Your task to perform on an android device: allow cookies in the chrome app Image 0: 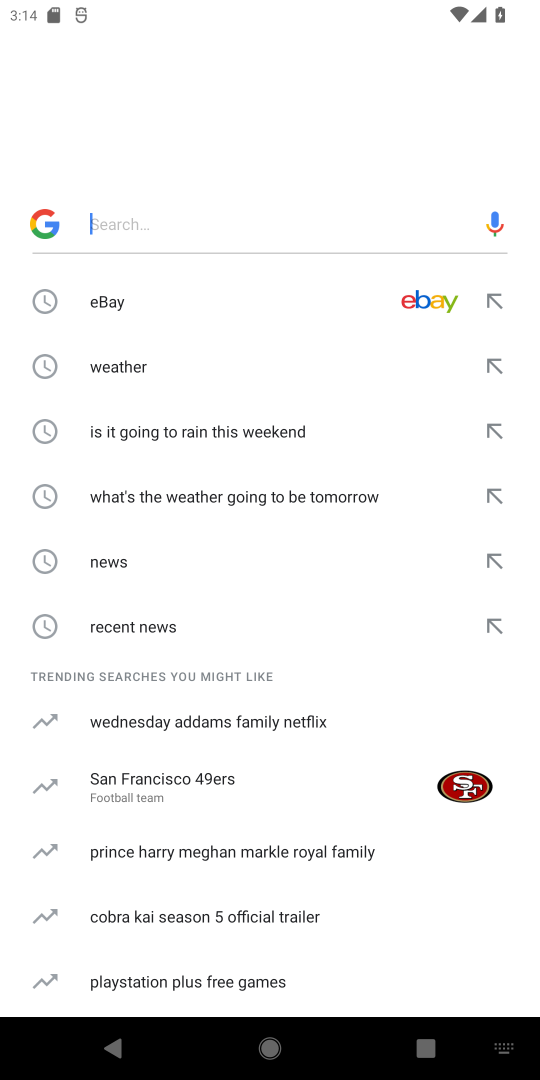
Step 0: press home button
Your task to perform on an android device: allow cookies in the chrome app Image 1: 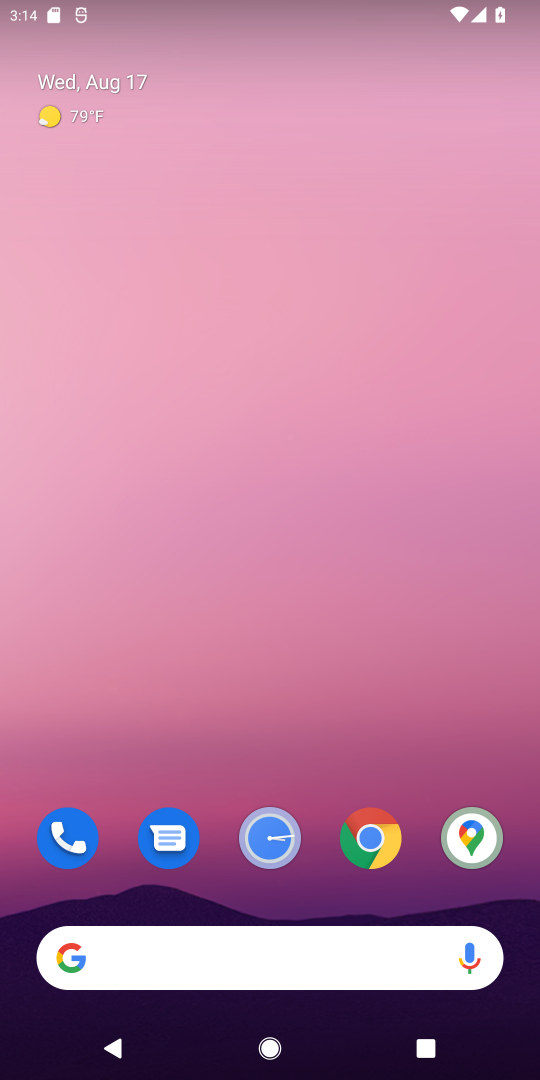
Step 1: click (382, 847)
Your task to perform on an android device: allow cookies in the chrome app Image 2: 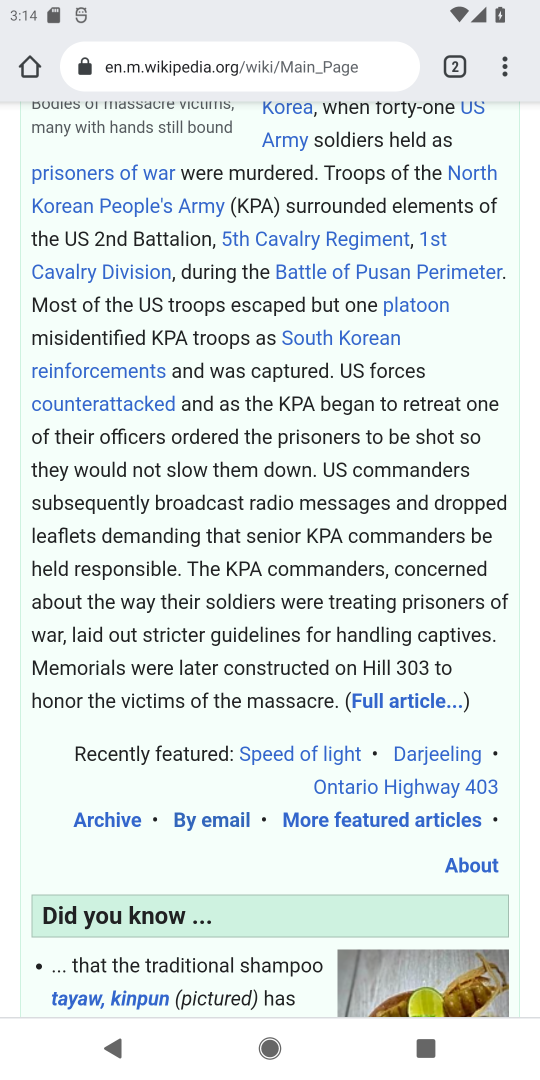
Step 2: click (506, 69)
Your task to perform on an android device: allow cookies in the chrome app Image 3: 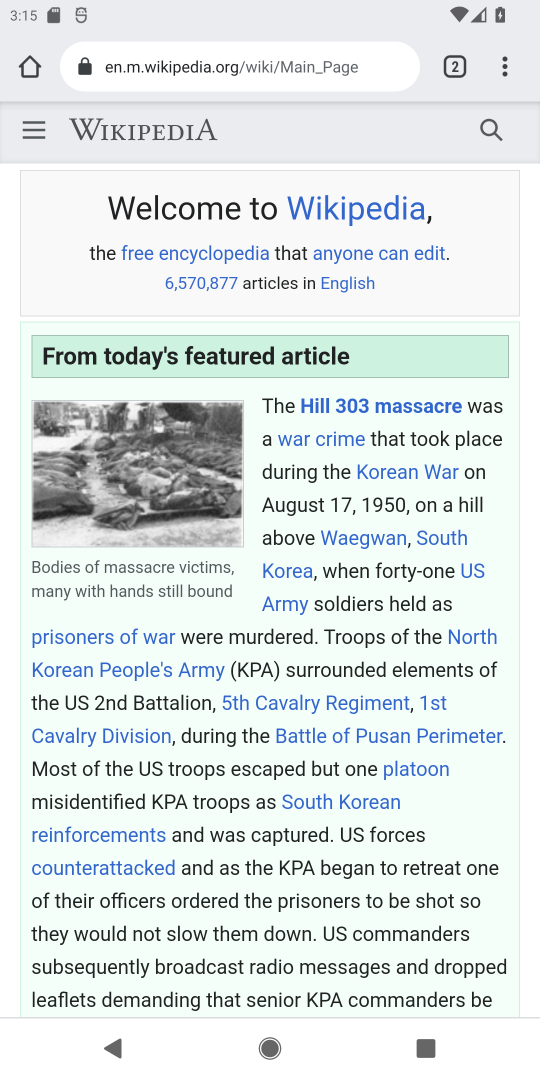
Step 3: click (498, 59)
Your task to perform on an android device: allow cookies in the chrome app Image 4: 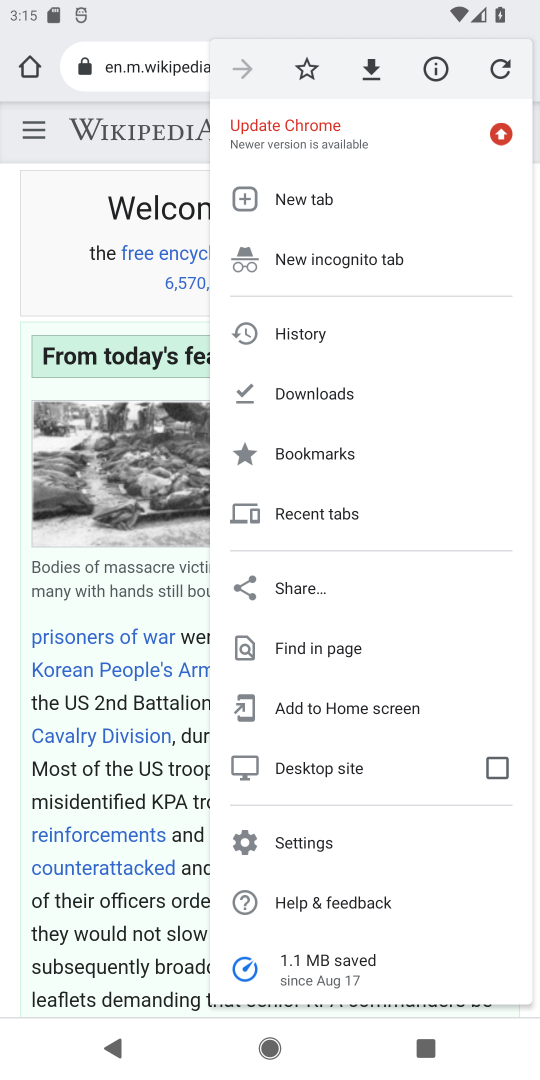
Step 4: click (309, 837)
Your task to perform on an android device: allow cookies in the chrome app Image 5: 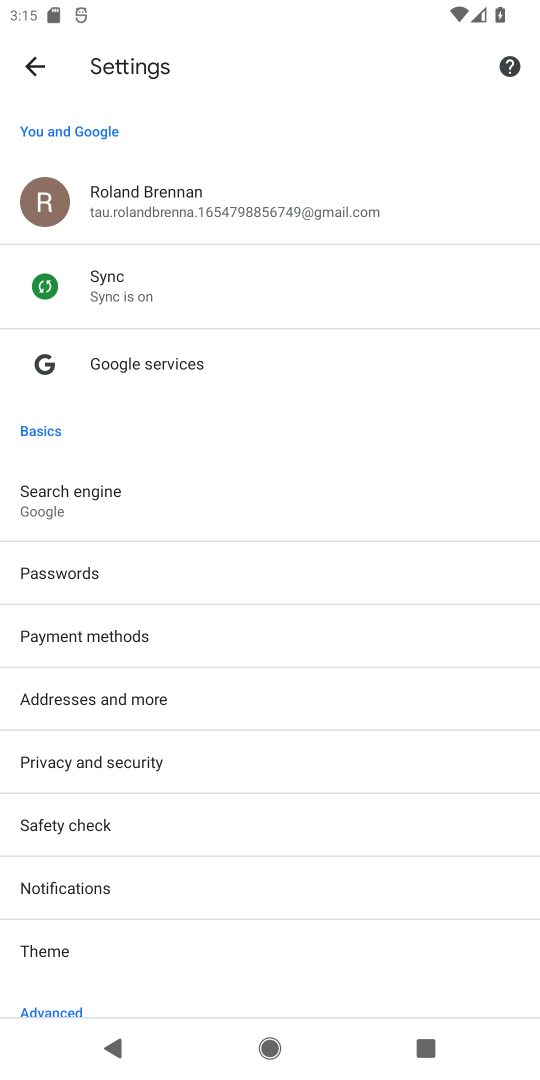
Step 5: drag from (110, 953) to (110, 544)
Your task to perform on an android device: allow cookies in the chrome app Image 6: 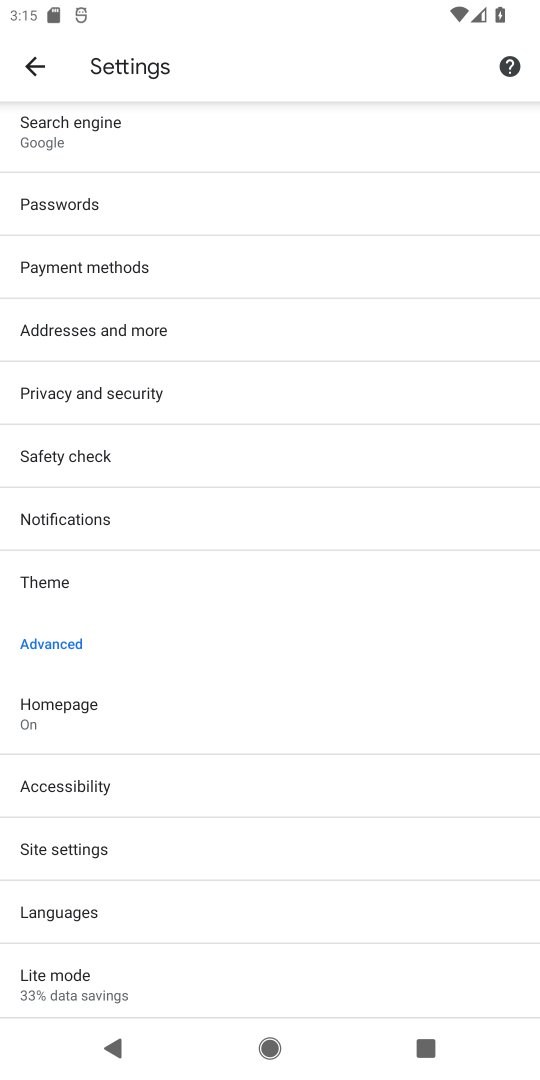
Step 6: click (71, 844)
Your task to perform on an android device: allow cookies in the chrome app Image 7: 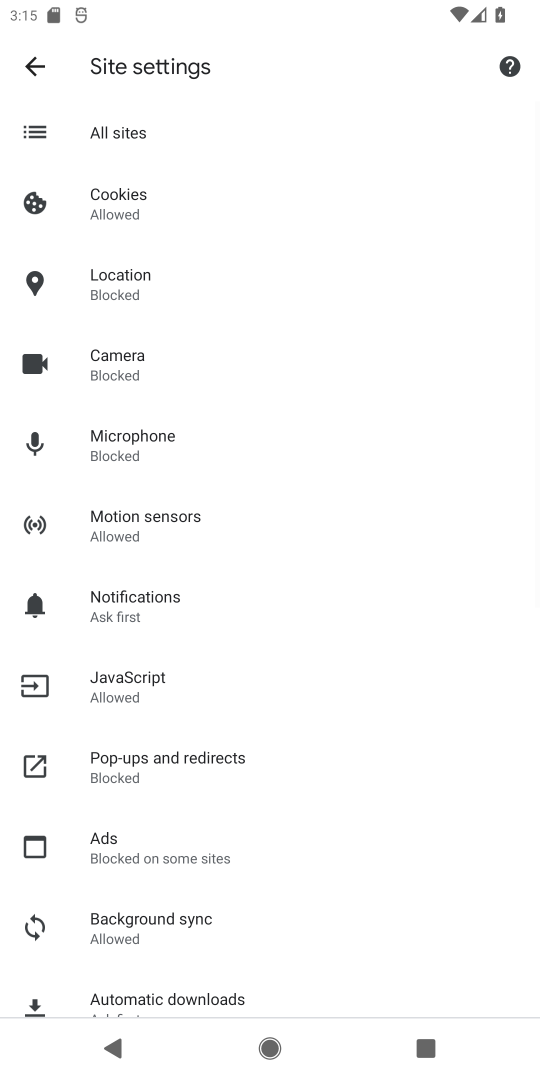
Step 7: click (125, 188)
Your task to perform on an android device: allow cookies in the chrome app Image 8: 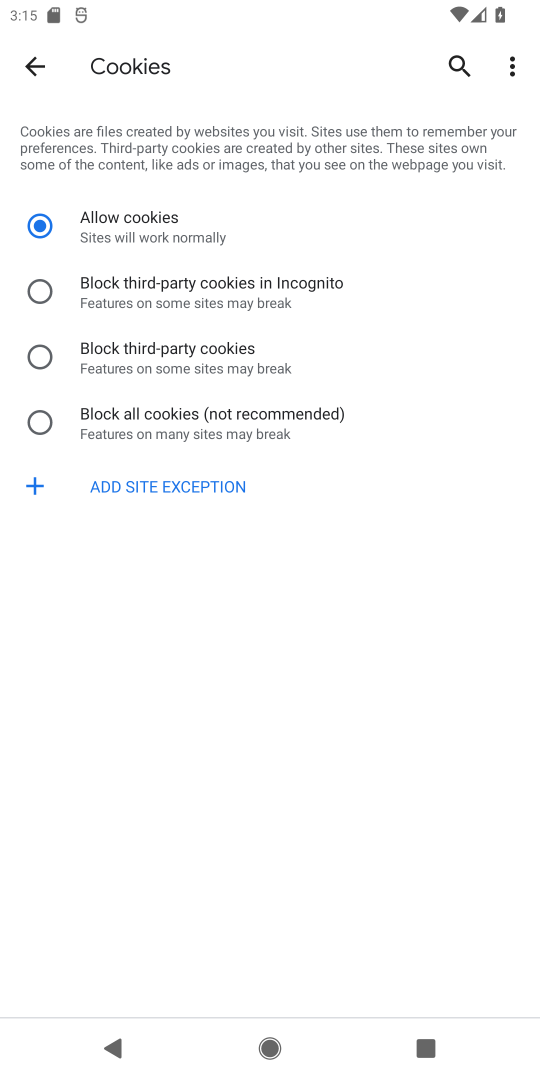
Step 8: task complete